Your task to perform on an android device: find snoozed emails in the gmail app Image 0: 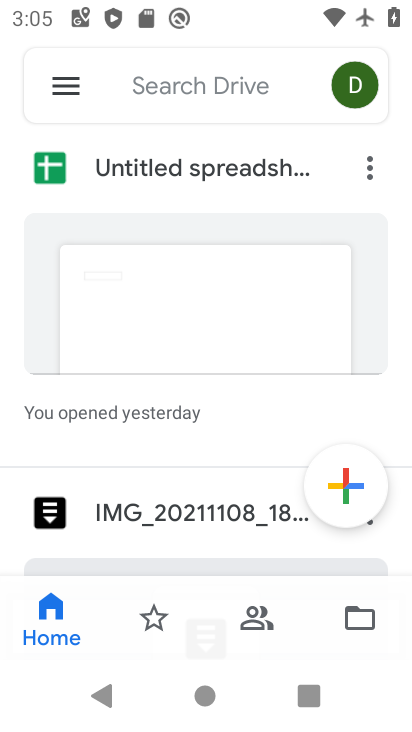
Step 0: press home button
Your task to perform on an android device: find snoozed emails in the gmail app Image 1: 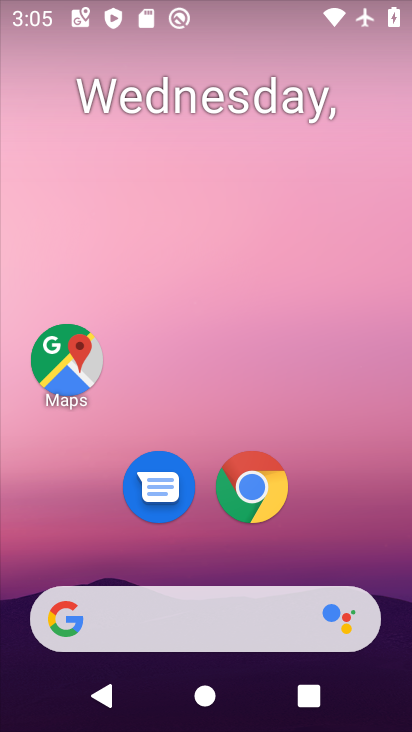
Step 1: drag from (331, 590) to (333, 0)
Your task to perform on an android device: find snoozed emails in the gmail app Image 2: 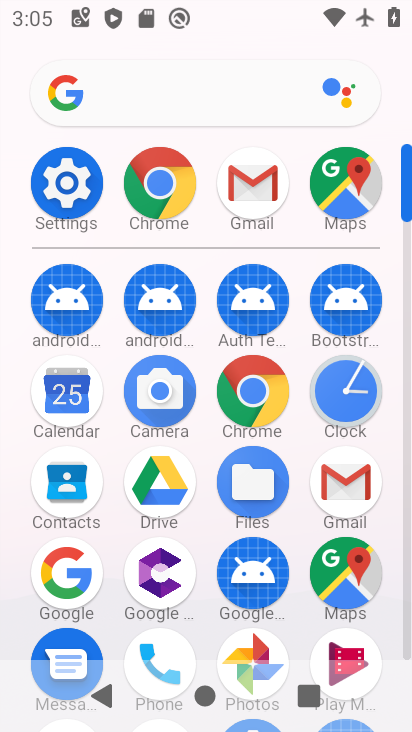
Step 2: click (271, 186)
Your task to perform on an android device: find snoozed emails in the gmail app Image 3: 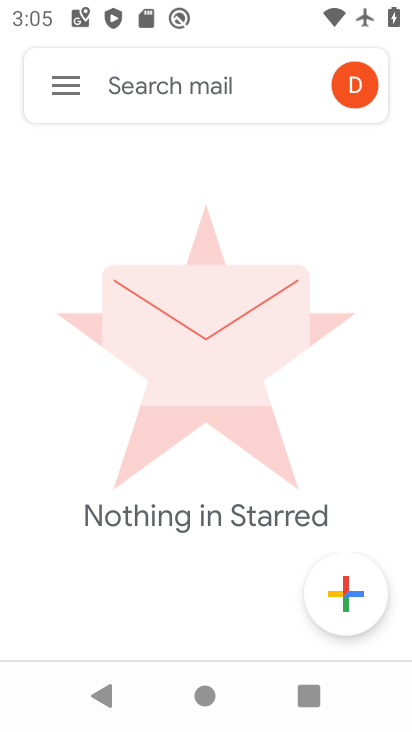
Step 3: click (77, 107)
Your task to perform on an android device: find snoozed emails in the gmail app Image 4: 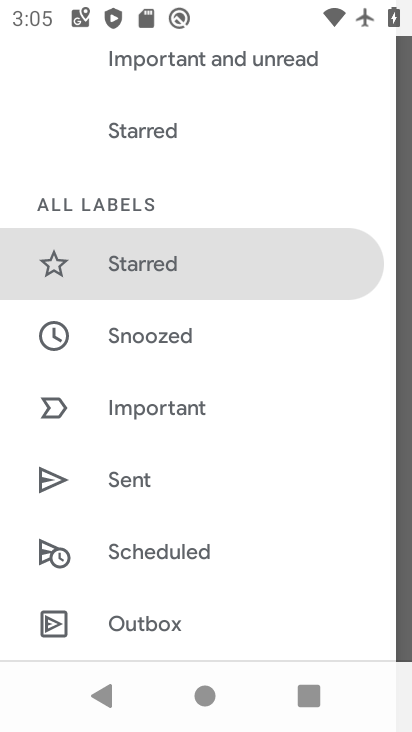
Step 4: click (192, 339)
Your task to perform on an android device: find snoozed emails in the gmail app Image 5: 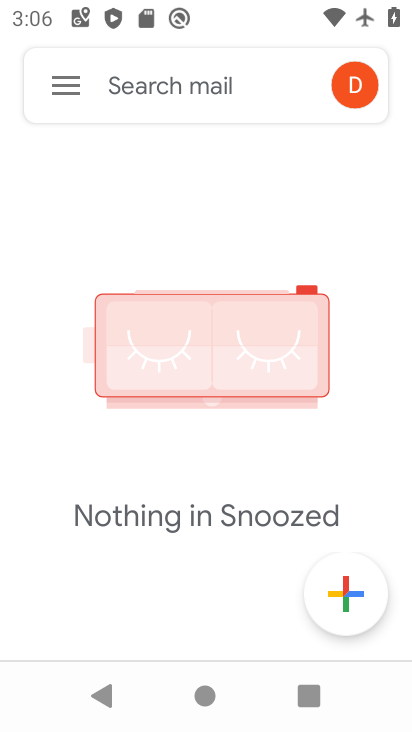
Step 5: task complete